Your task to perform on an android device: Open Amazon Image 0: 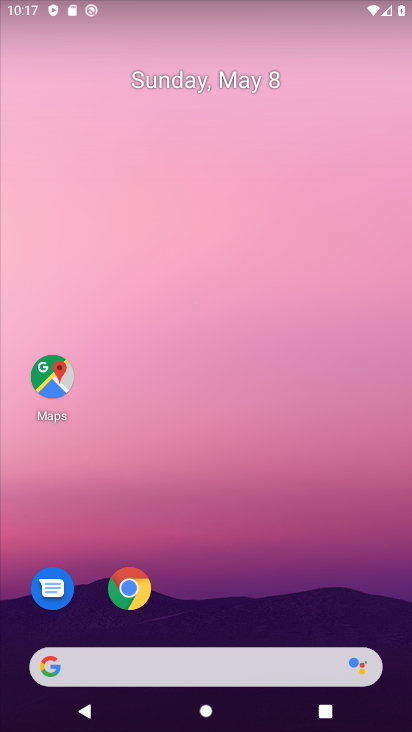
Step 0: click (122, 592)
Your task to perform on an android device: Open Amazon Image 1: 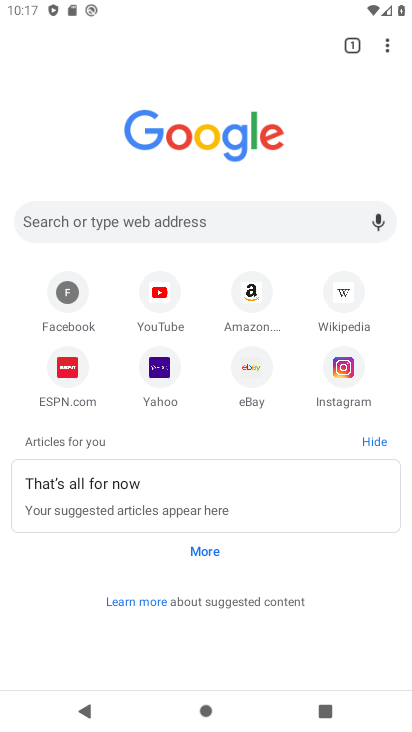
Step 1: click (261, 291)
Your task to perform on an android device: Open Amazon Image 2: 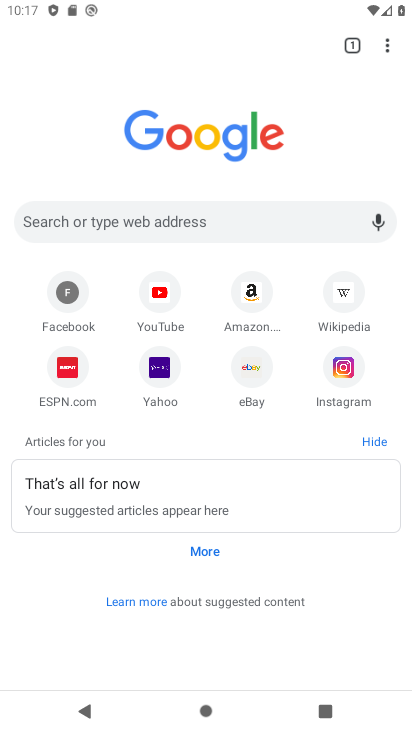
Step 2: click (261, 291)
Your task to perform on an android device: Open Amazon Image 3: 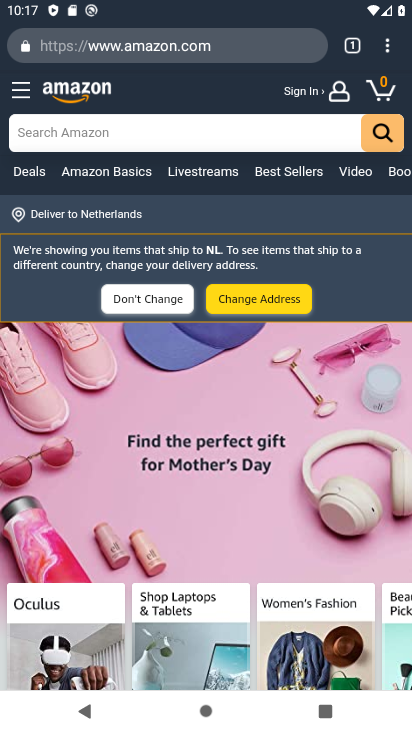
Step 3: task complete